Your task to perform on an android device: Add "razer blade" to the cart on target.com Image 0: 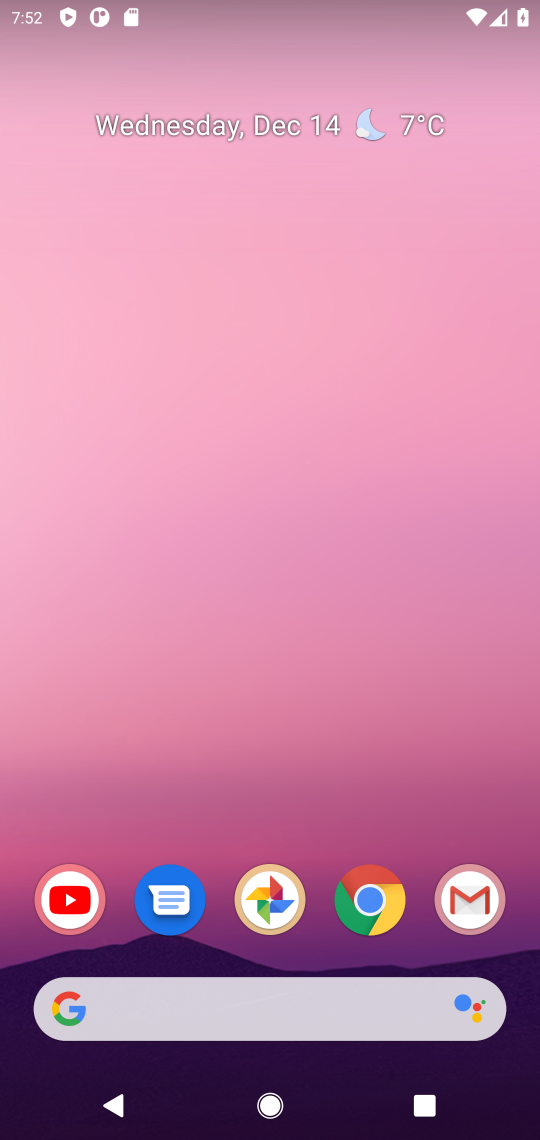
Step 0: click (251, 1042)
Your task to perform on an android device: Add "razer blade" to the cart on target.com Image 1: 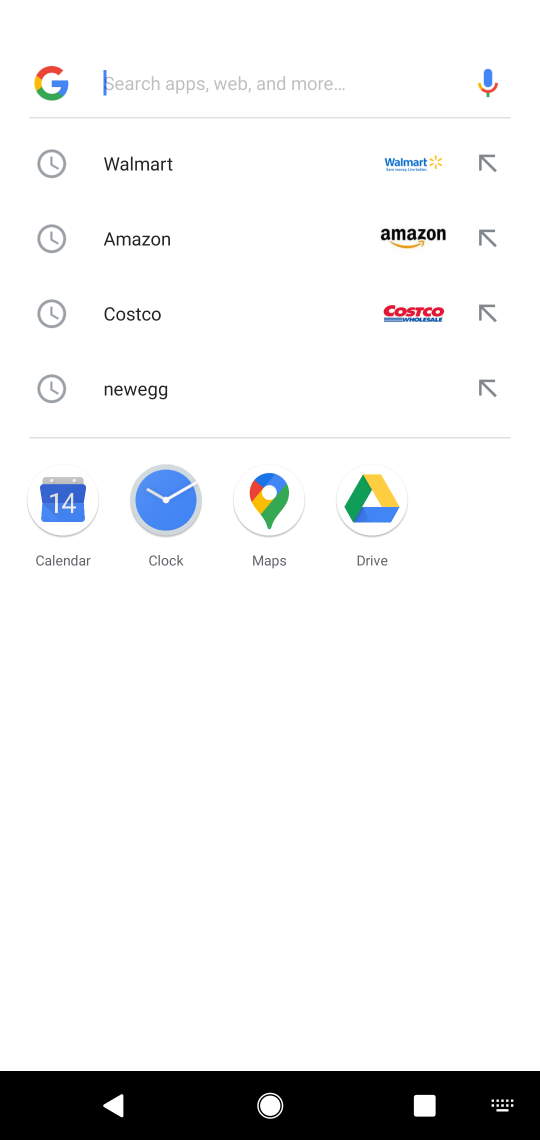
Step 1: type " target.com"
Your task to perform on an android device: Add "razer blade" to the cart on target.com Image 2: 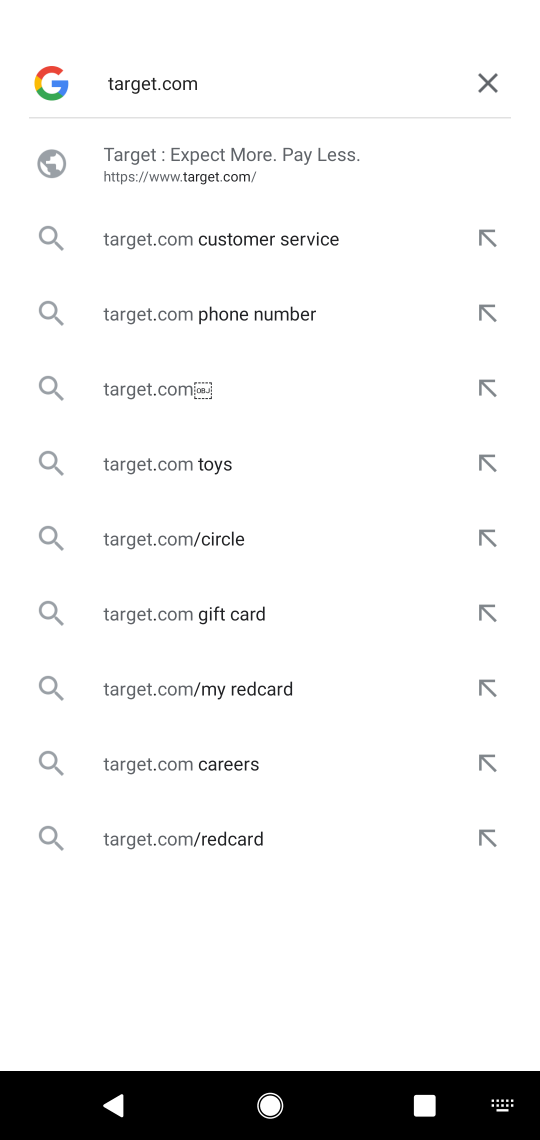
Step 2: type ""
Your task to perform on an android device: Add "razer blade" to the cart on target.com Image 3: 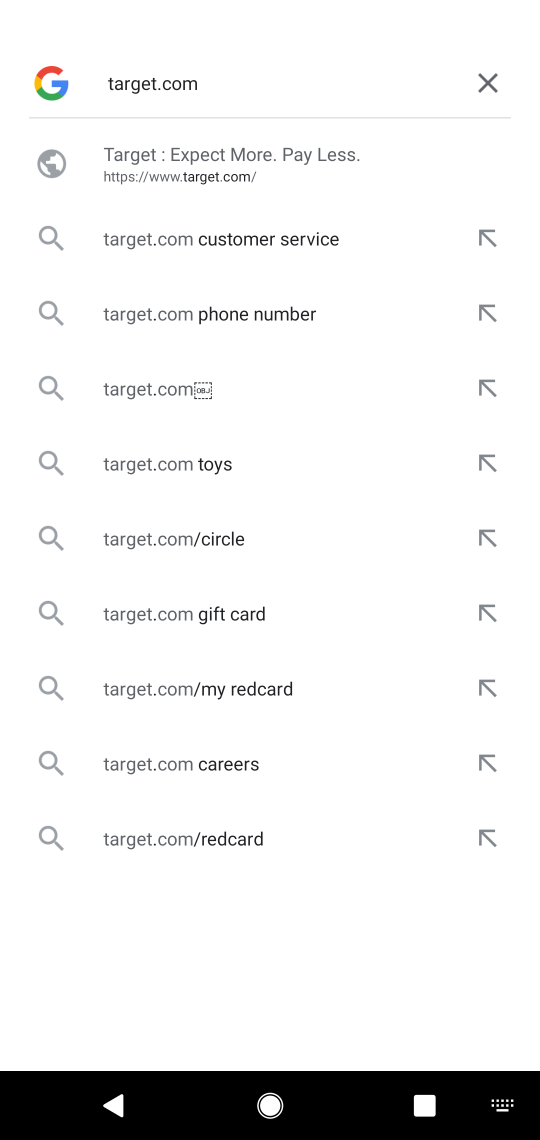
Step 3: click (187, 195)
Your task to perform on an android device: Add "razer blade" to the cart on target.com Image 4: 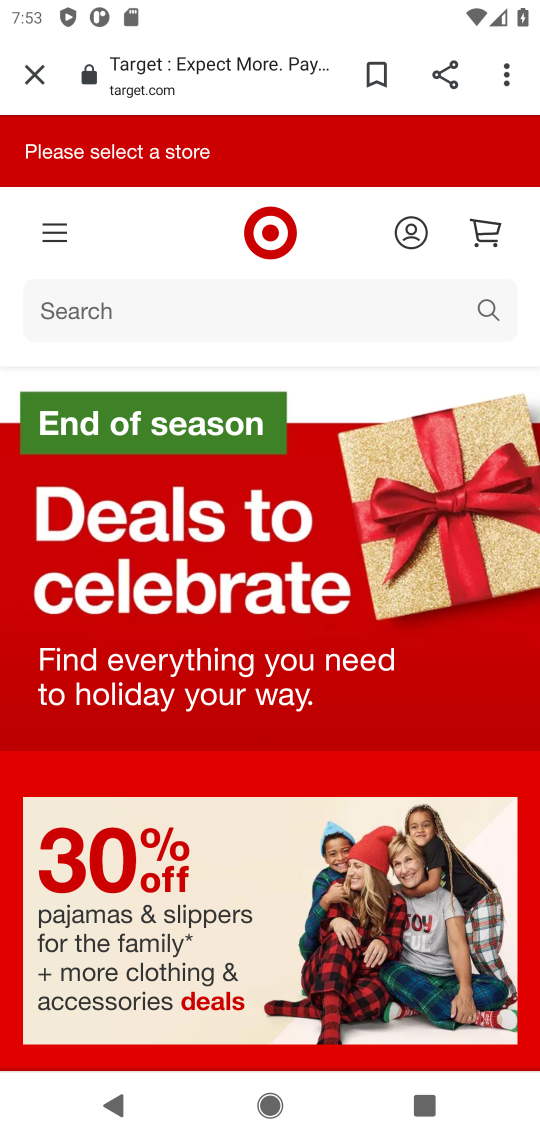
Step 4: click (75, 317)
Your task to perform on an android device: Add "razer blade" to the cart on target.com Image 5: 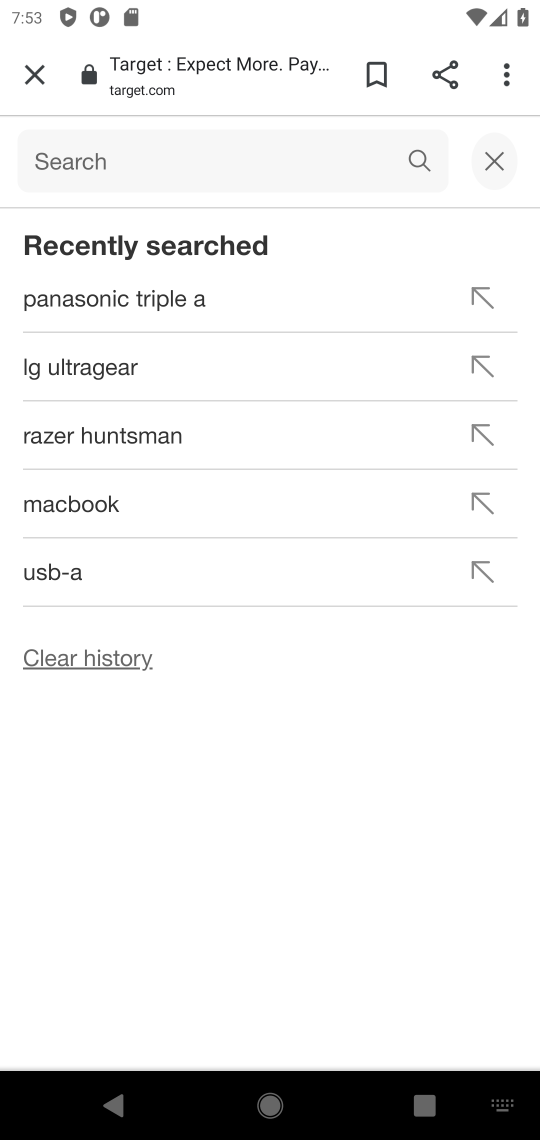
Step 5: type "razer blade"
Your task to perform on an android device: Add "razer blade" to the cart on target.com Image 6: 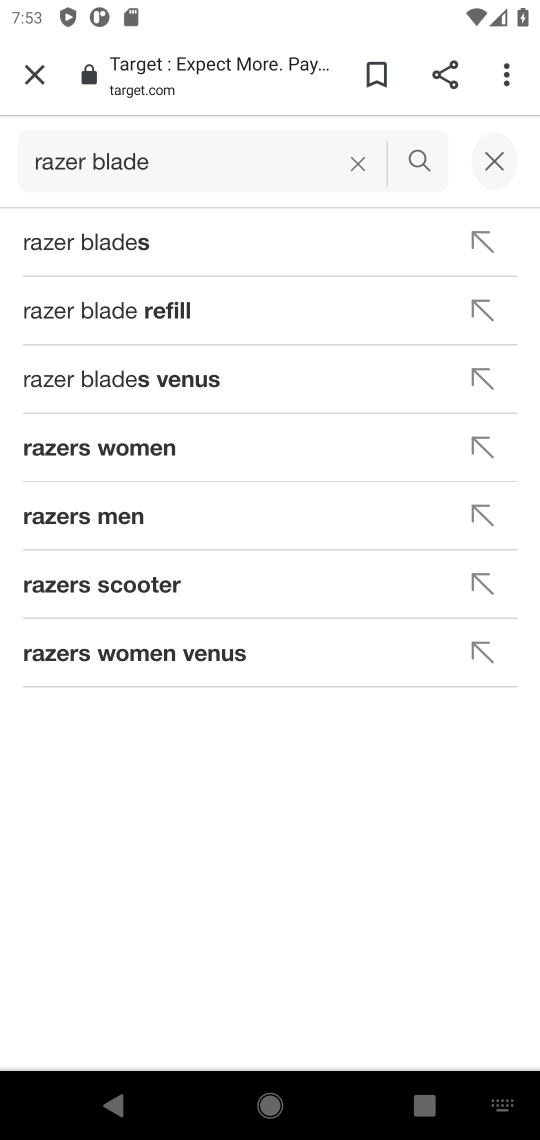
Step 6: click (410, 154)
Your task to perform on an android device: Add "razer blade" to the cart on target.com Image 7: 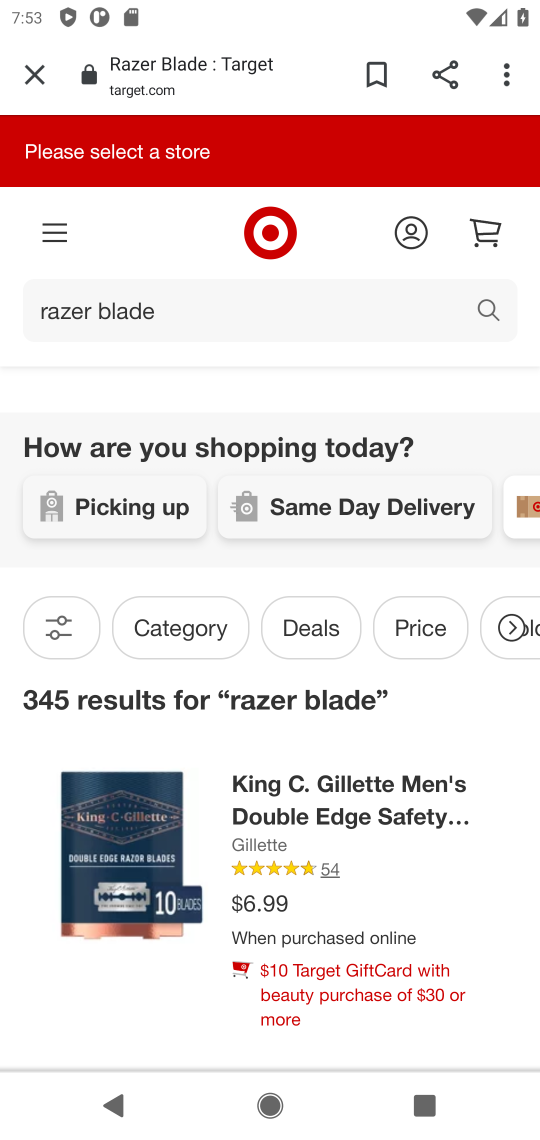
Step 7: click (332, 813)
Your task to perform on an android device: Add "razer blade" to the cart on target.com Image 8: 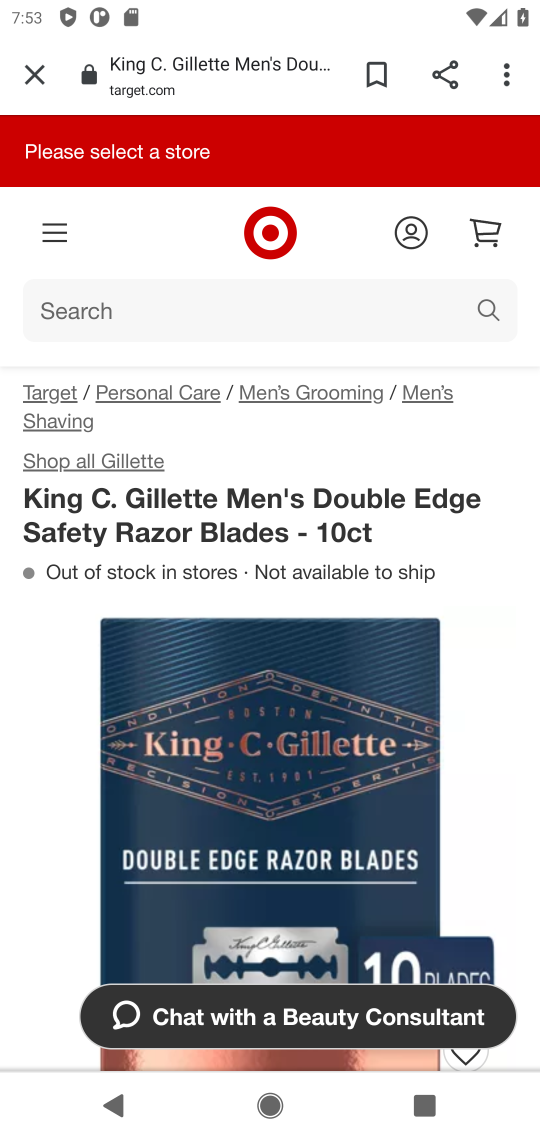
Step 8: drag from (336, 861) to (205, 274)
Your task to perform on an android device: Add "razer blade" to the cart on target.com Image 9: 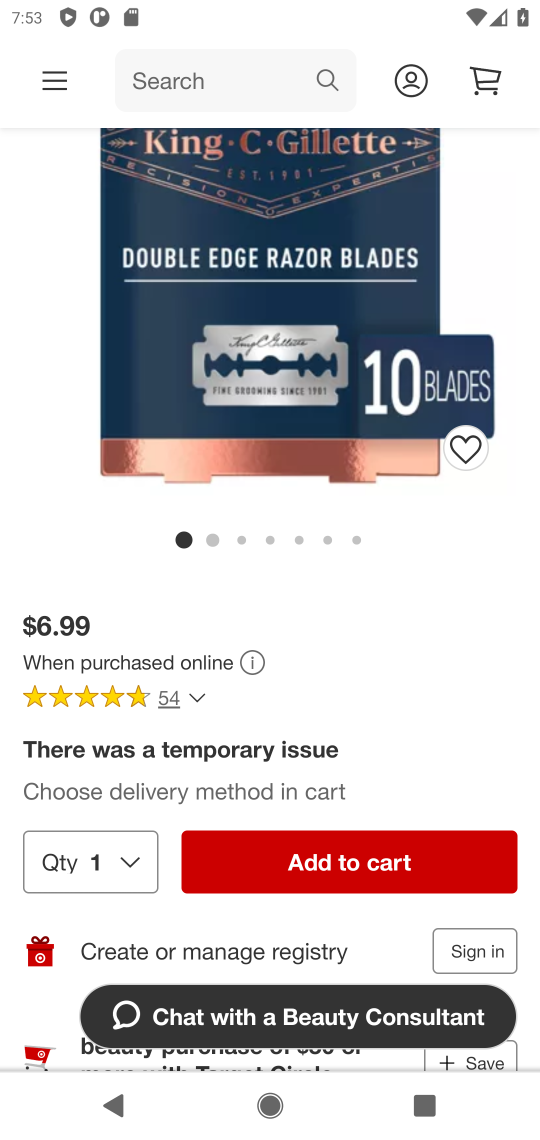
Step 9: click (344, 853)
Your task to perform on an android device: Add "razer blade" to the cart on target.com Image 10: 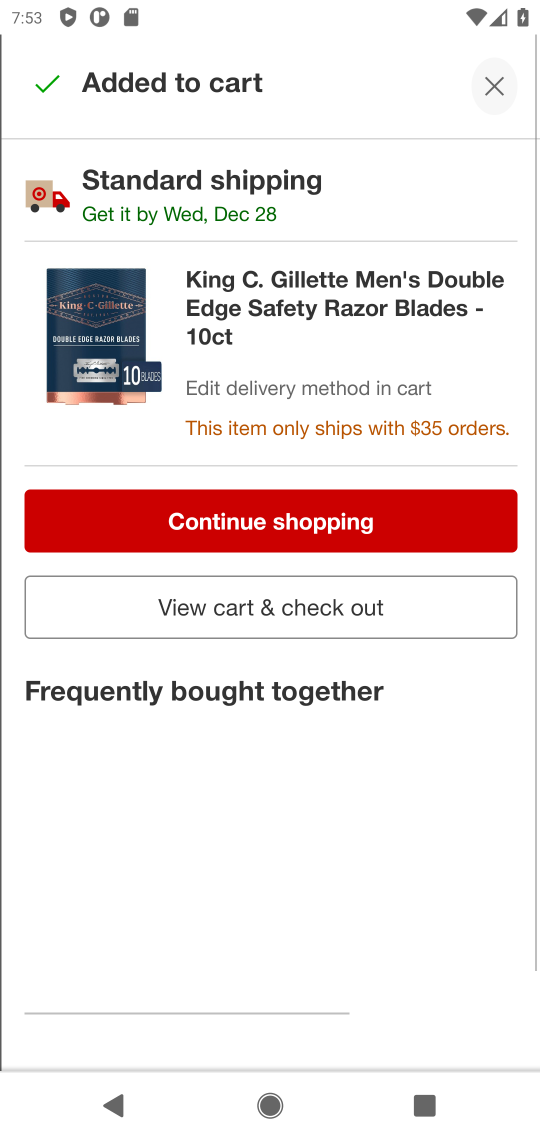
Step 10: task complete